Your task to perform on an android device: Clear the shopping cart on amazon. Add razer kraken to the cart on amazon Image 0: 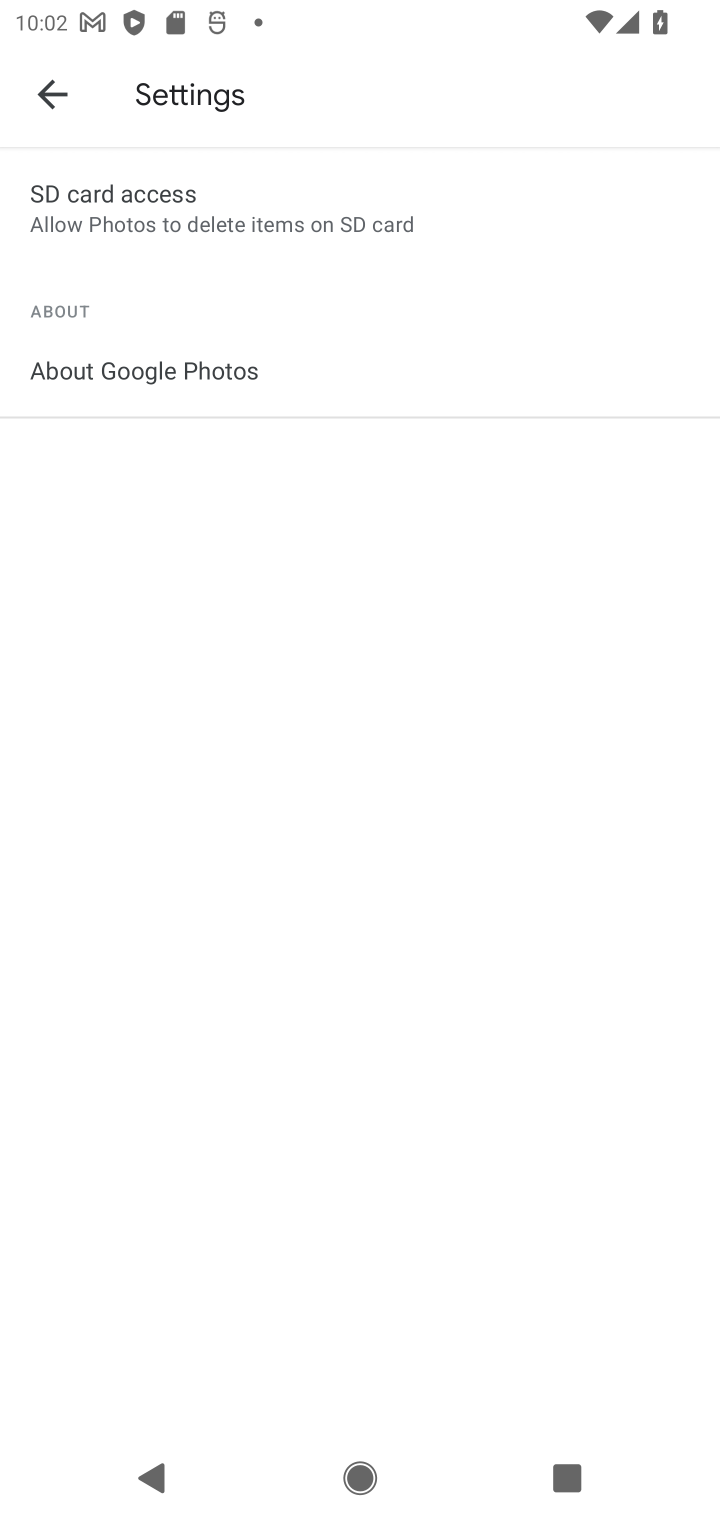
Step 0: press home button
Your task to perform on an android device: Clear the shopping cart on amazon. Add razer kraken to the cart on amazon Image 1: 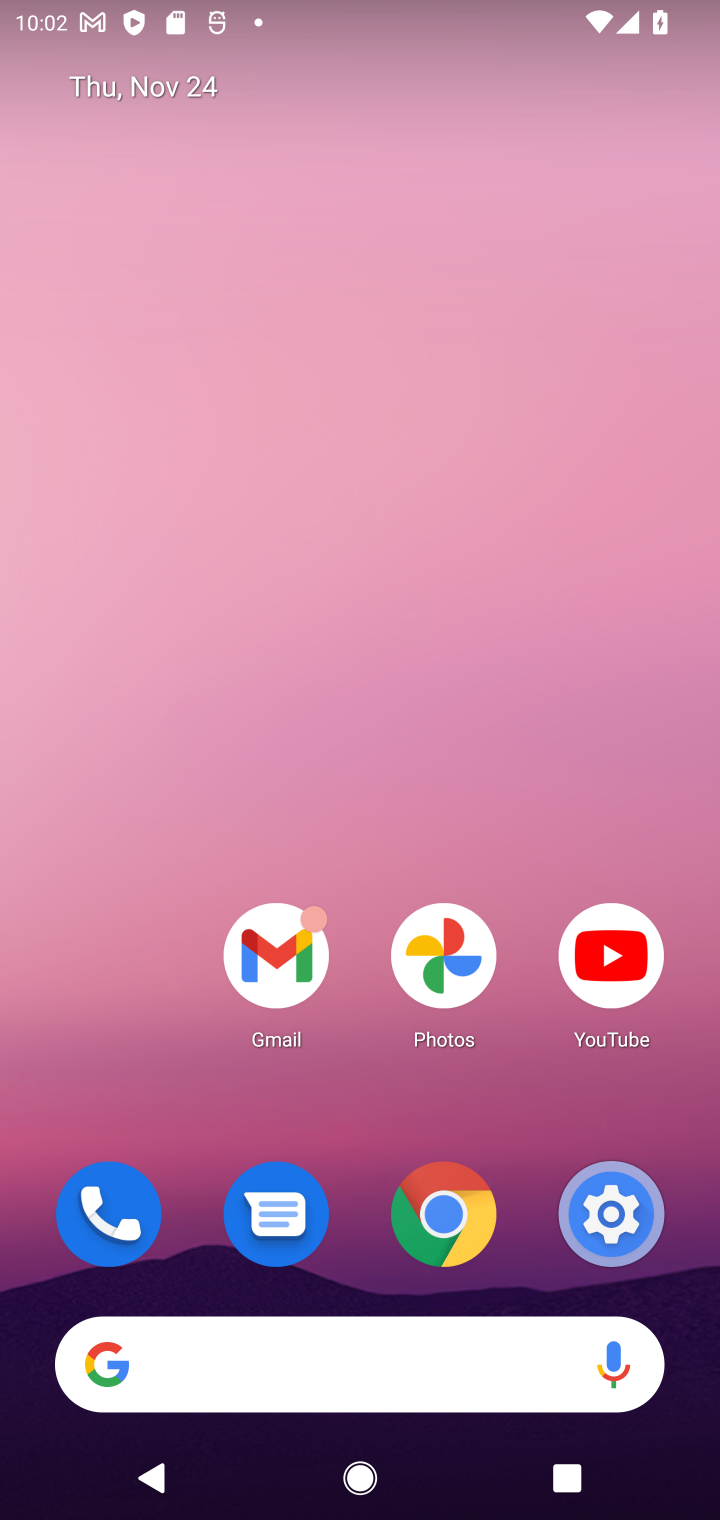
Step 1: click (269, 1394)
Your task to perform on an android device: Clear the shopping cart on amazon. Add razer kraken to the cart on amazon Image 2: 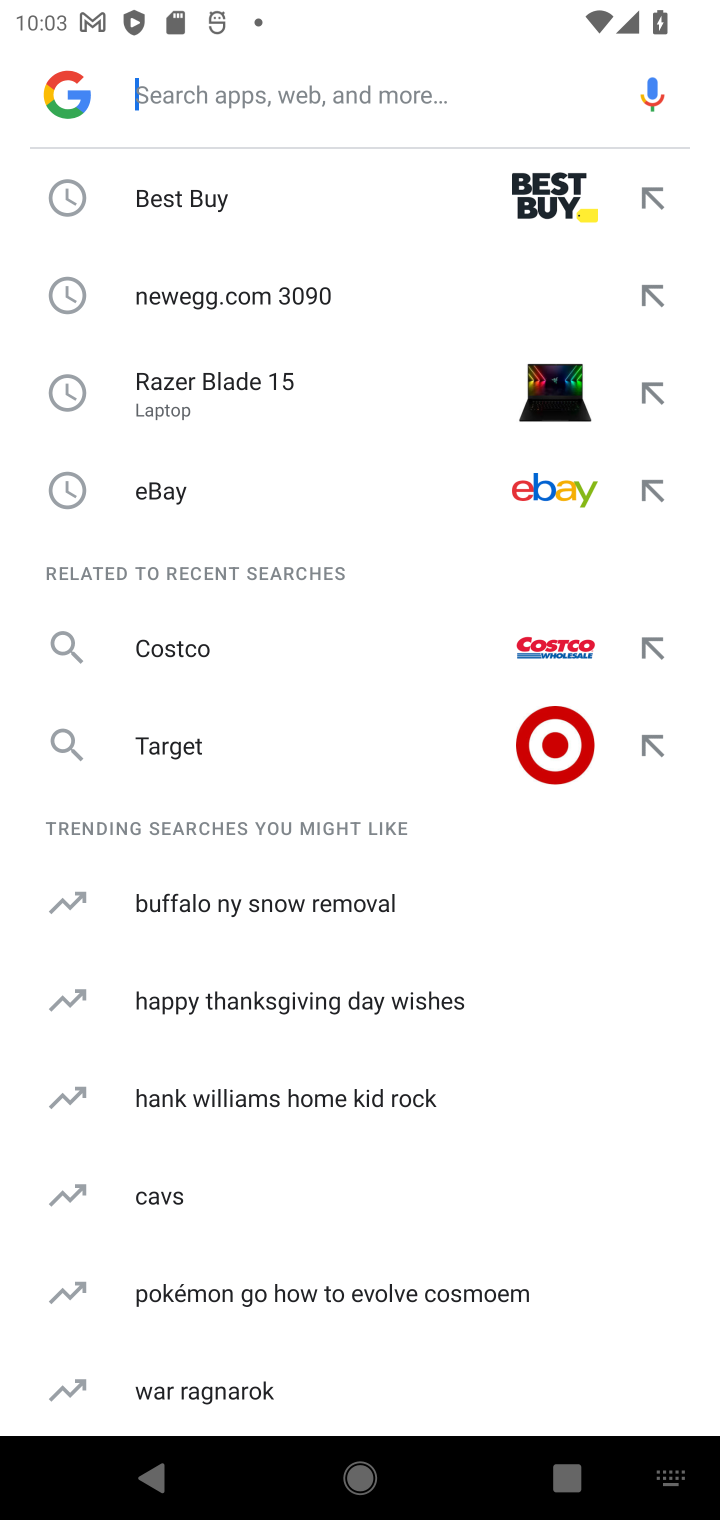
Step 2: type "amazon"
Your task to perform on an android device: Clear the shopping cart on amazon. Add razer kraken to the cart on amazon Image 3: 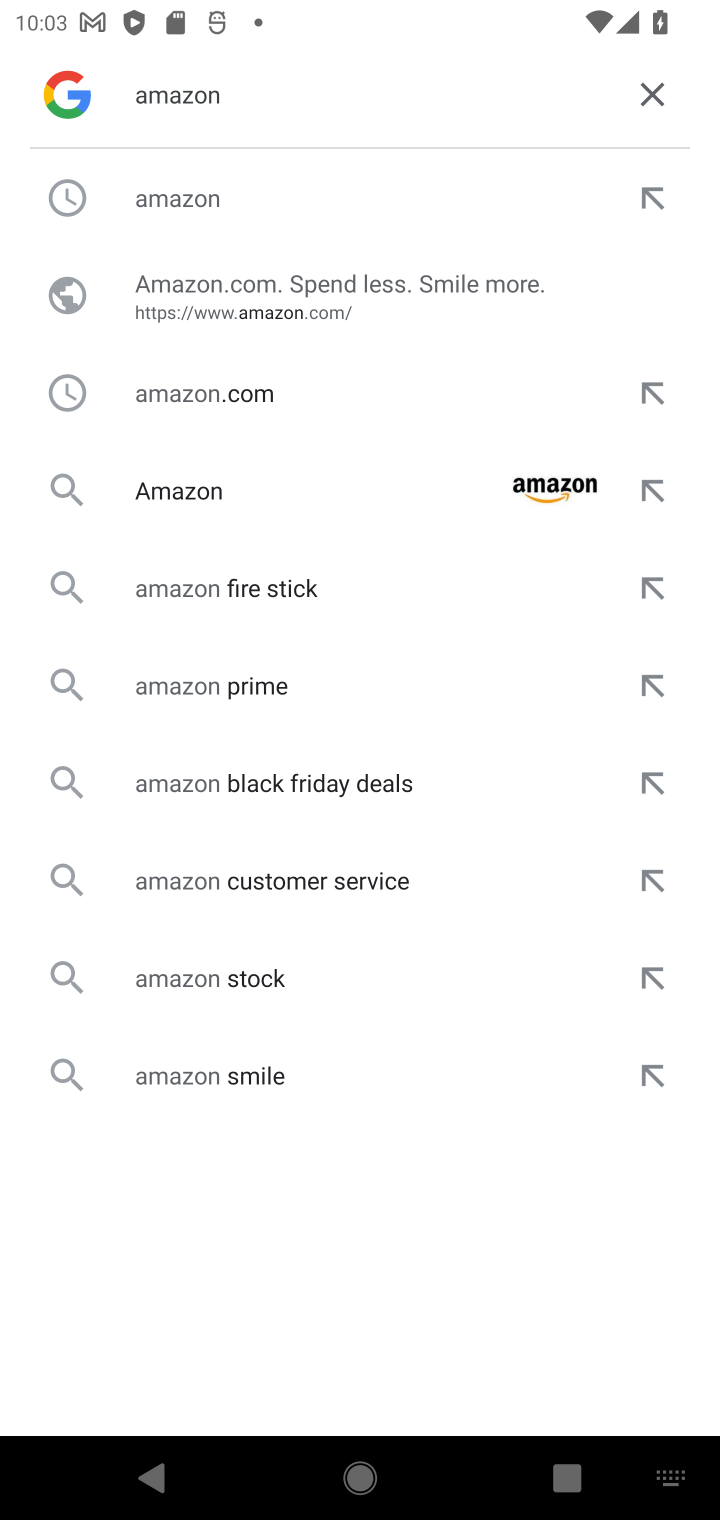
Step 3: click (250, 270)
Your task to perform on an android device: Clear the shopping cart on amazon. Add razer kraken to the cart on amazon Image 4: 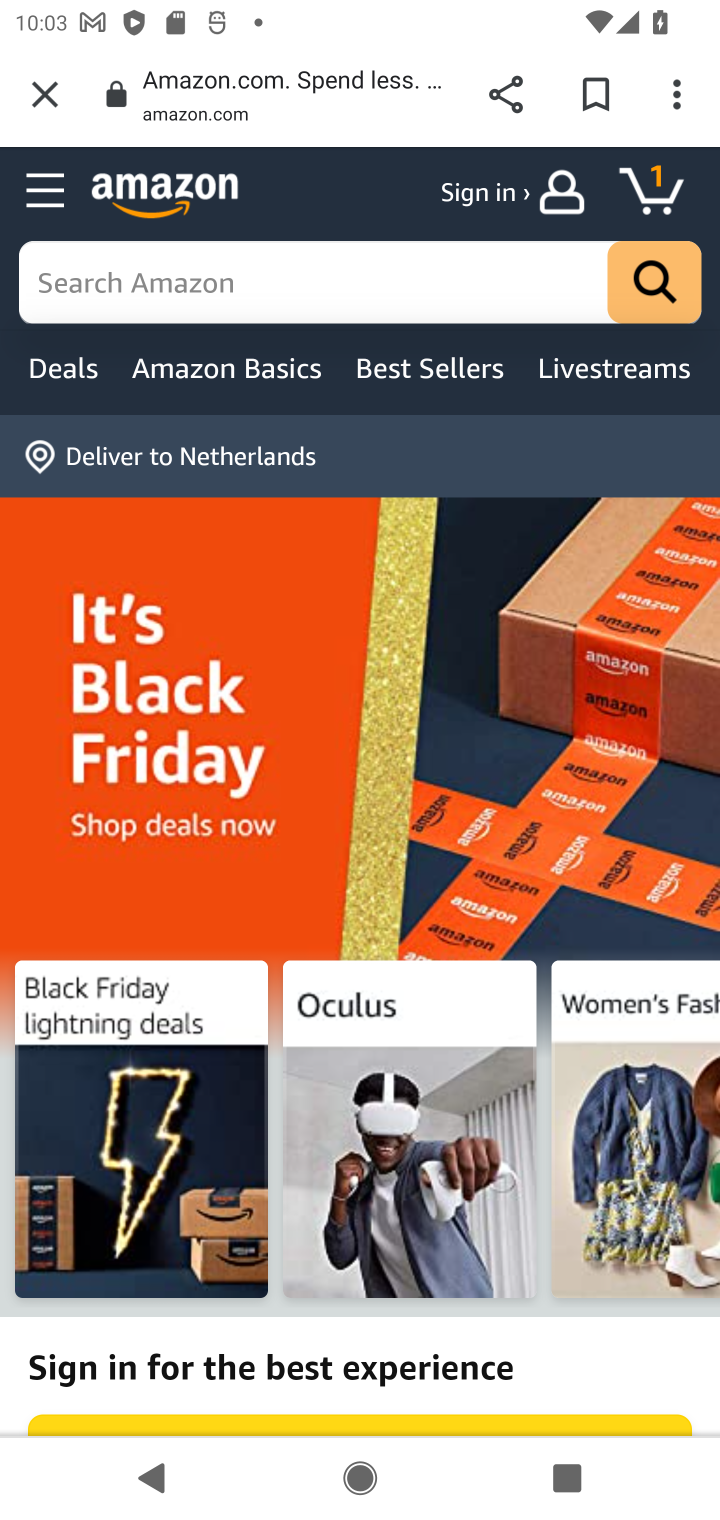
Step 4: click (250, 270)
Your task to perform on an android device: Clear the shopping cart on amazon. Add razer kraken to the cart on amazon Image 5: 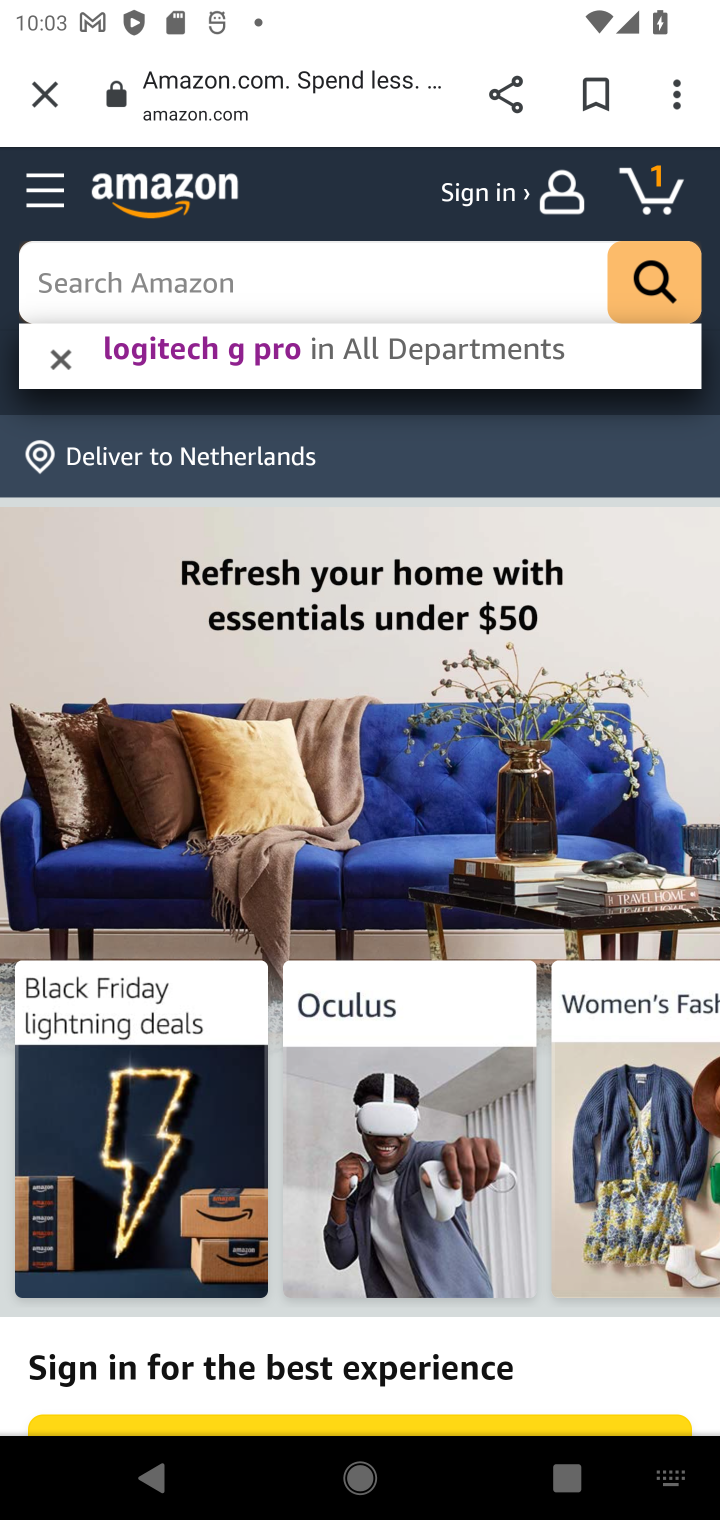
Step 5: type "razer karken"
Your task to perform on an android device: Clear the shopping cart on amazon. Add razer kraken to the cart on amazon Image 6: 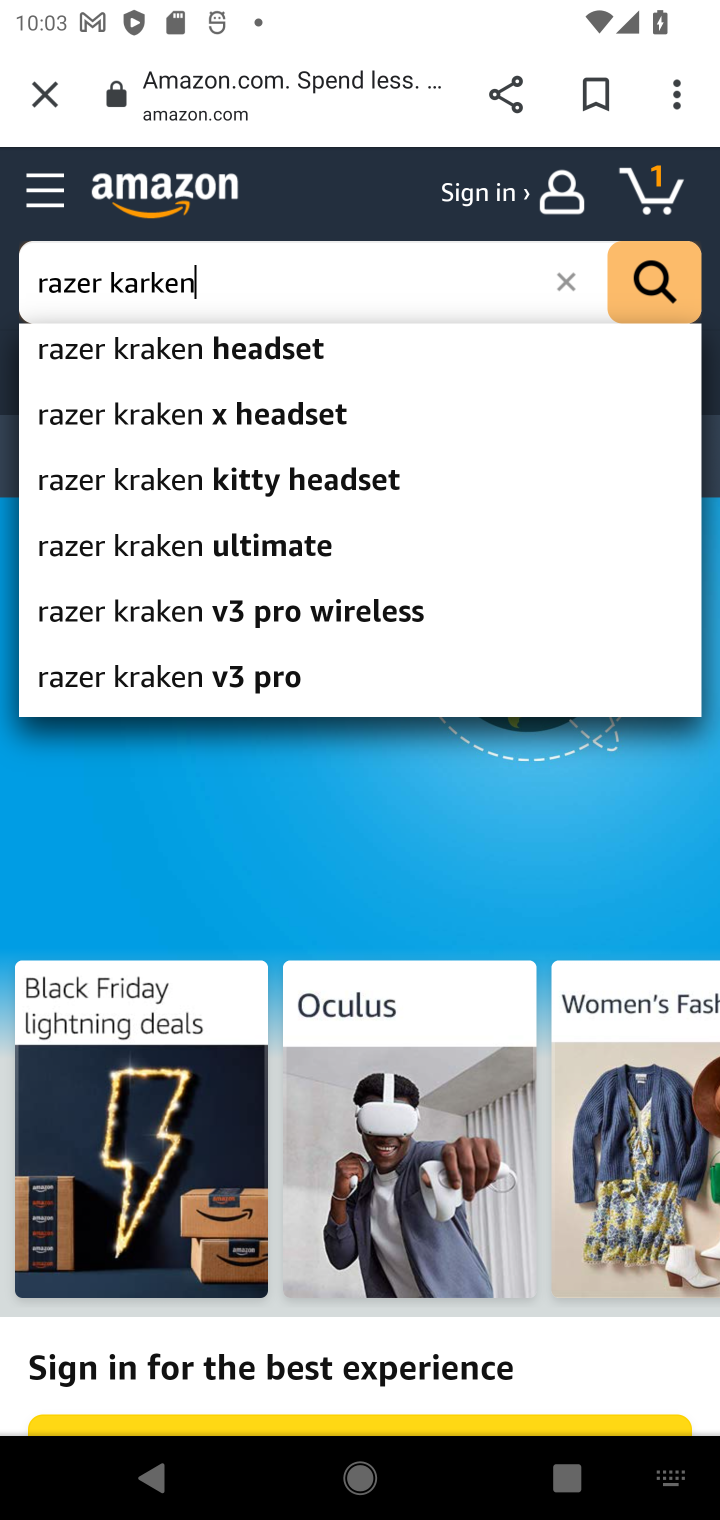
Step 6: click (260, 351)
Your task to perform on an android device: Clear the shopping cart on amazon. Add razer kraken to the cart on amazon Image 7: 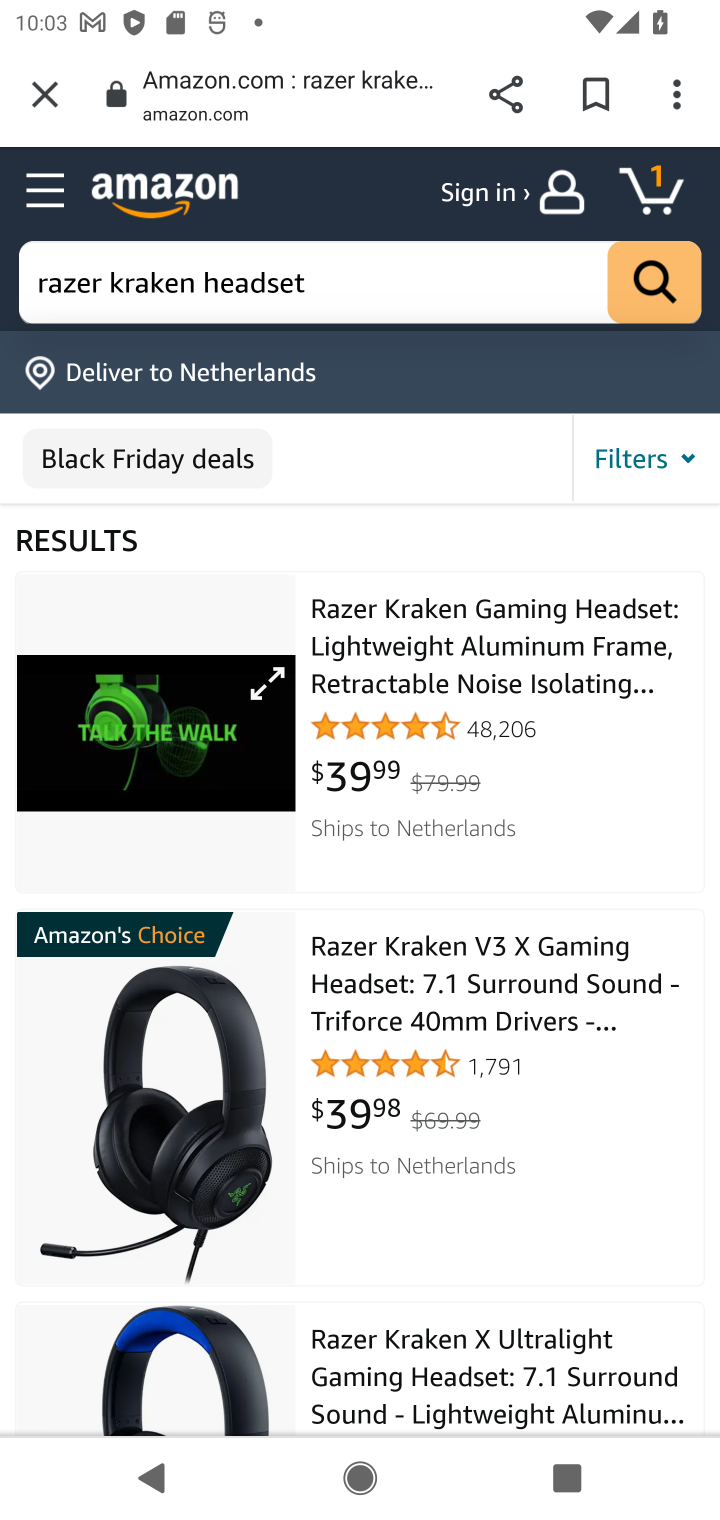
Step 7: click (491, 621)
Your task to perform on an android device: Clear the shopping cart on amazon. Add razer kraken to the cart on amazon Image 8: 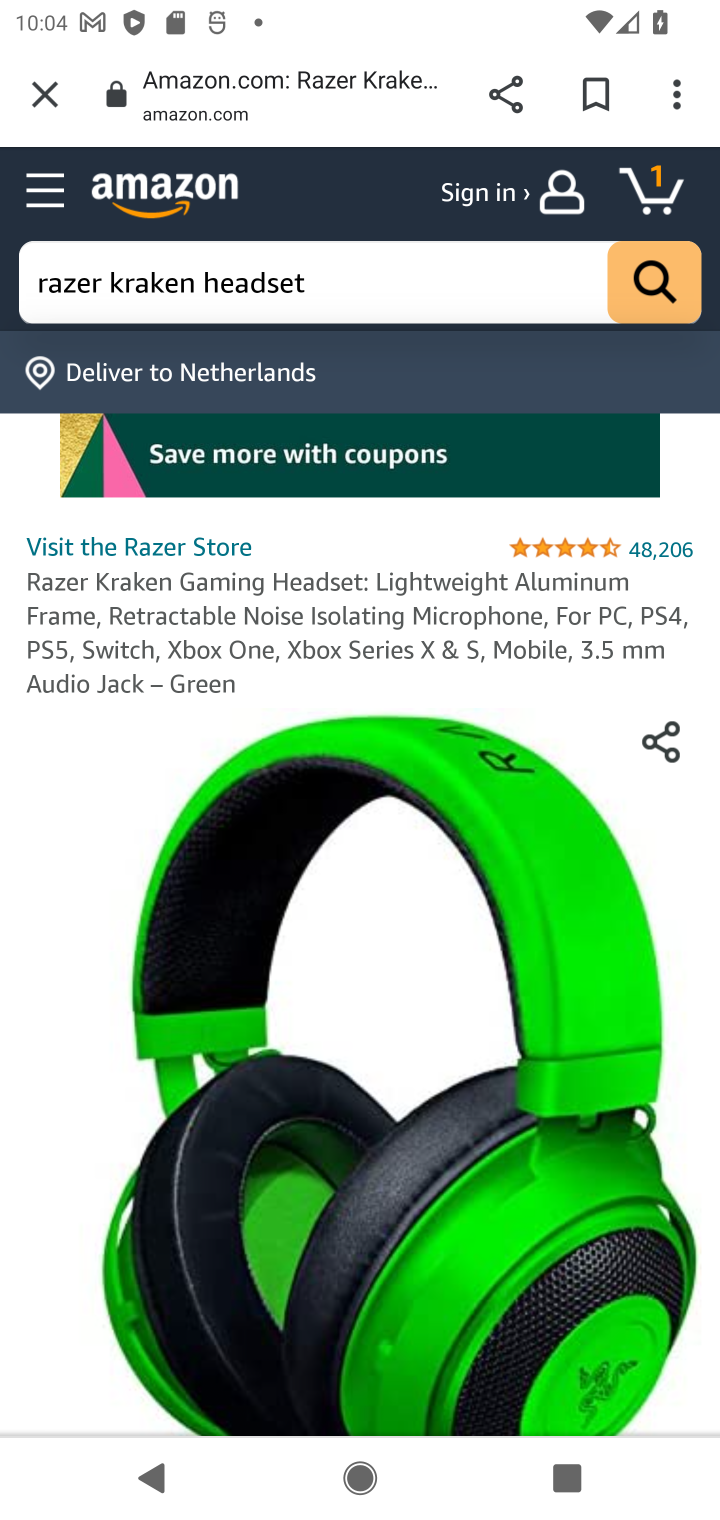
Step 8: task complete